Your task to perform on an android device: turn on translation in the chrome app Image 0: 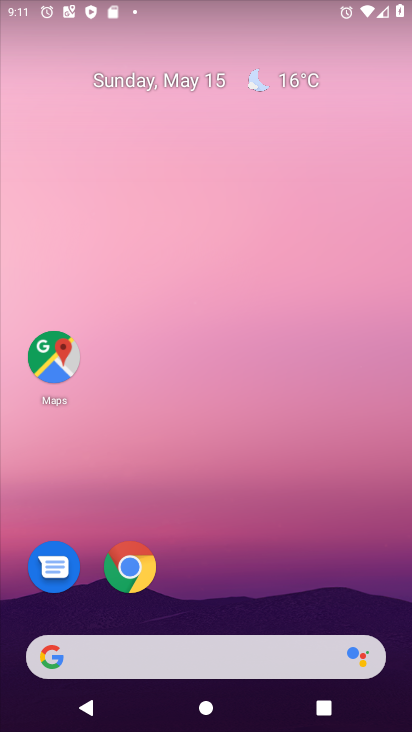
Step 0: click (140, 588)
Your task to perform on an android device: turn on translation in the chrome app Image 1: 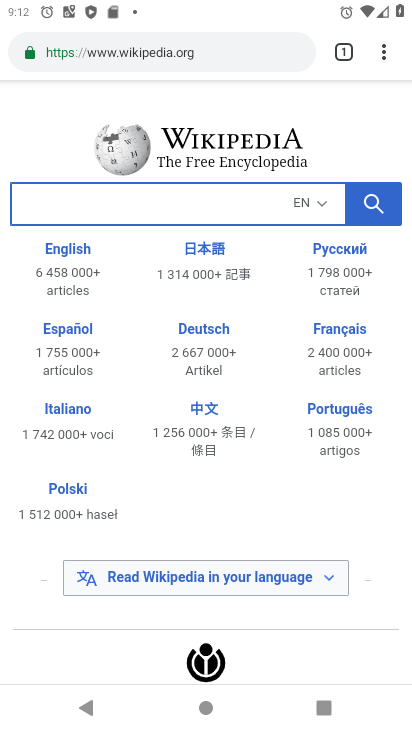
Step 1: click (389, 53)
Your task to perform on an android device: turn on translation in the chrome app Image 2: 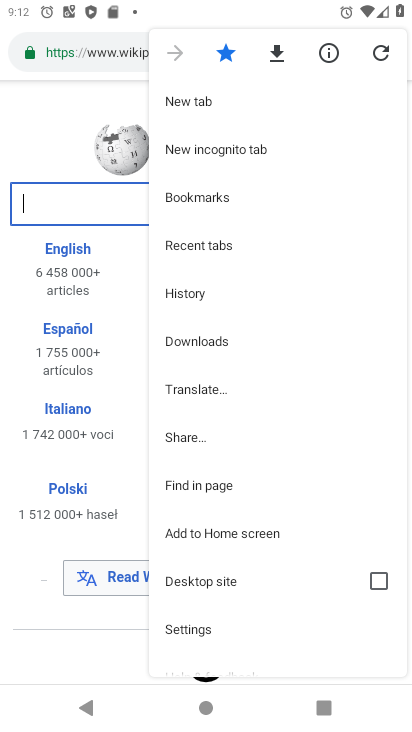
Step 2: click (217, 620)
Your task to perform on an android device: turn on translation in the chrome app Image 3: 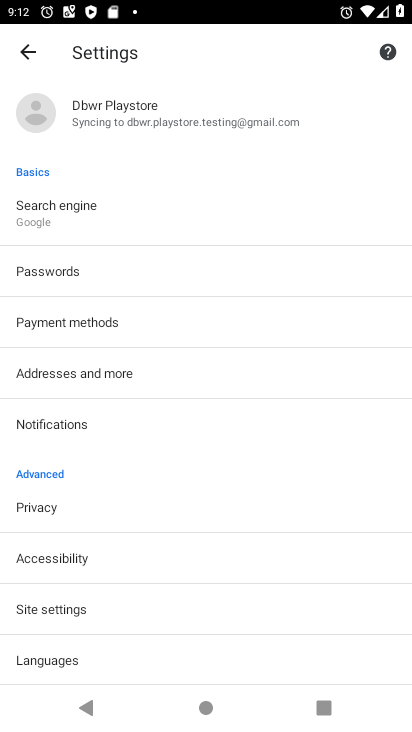
Step 3: click (66, 646)
Your task to perform on an android device: turn on translation in the chrome app Image 4: 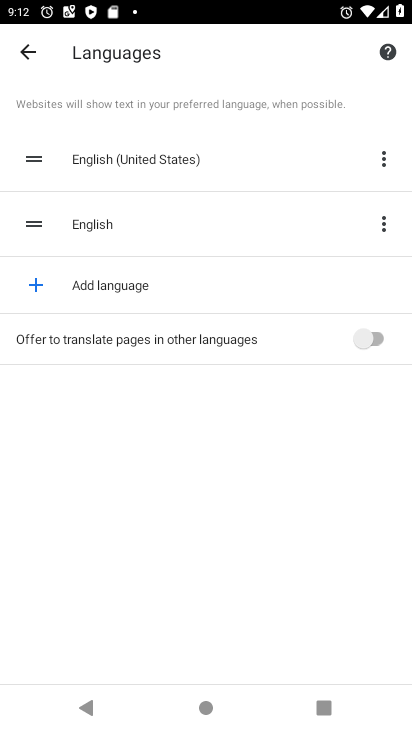
Step 4: click (369, 339)
Your task to perform on an android device: turn on translation in the chrome app Image 5: 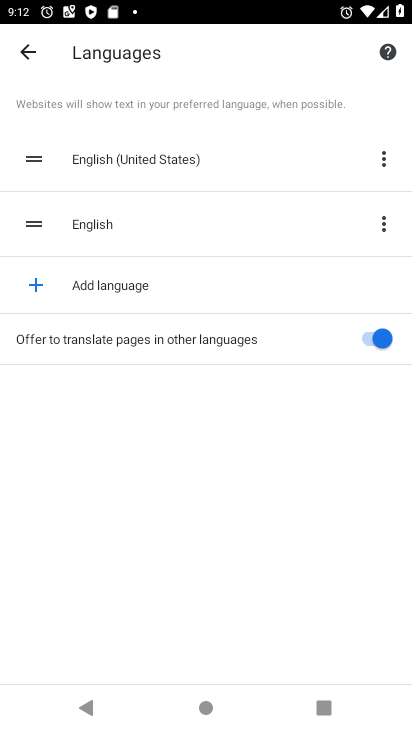
Step 5: task complete